Your task to perform on an android device: change text size in settings app Image 0: 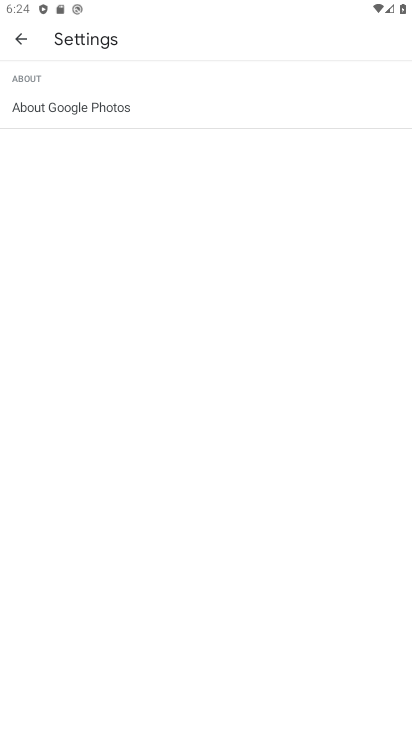
Step 0: press home button
Your task to perform on an android device: change text size in settings app Image 1: 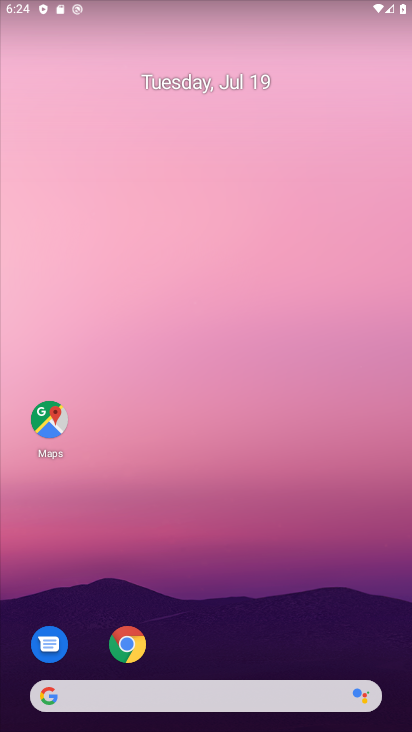
Step 1: drag from (243, 602) to (237, 231)
Your task to perform on an android device: change text size in settings app Image 2: 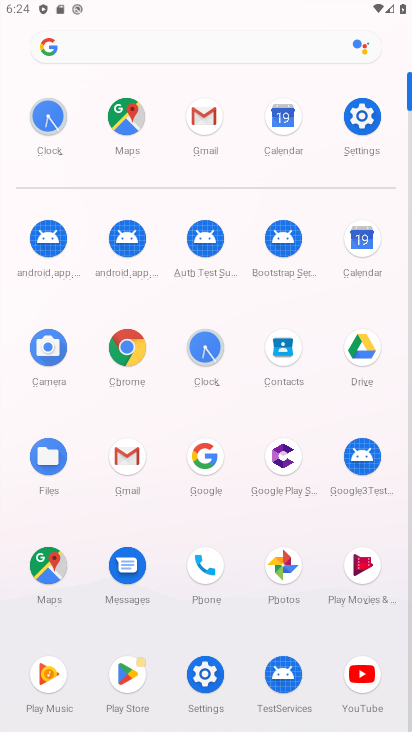
Step 2: click (365, 116)
Your task to perform on an android device: change text size in settings app Image 3: 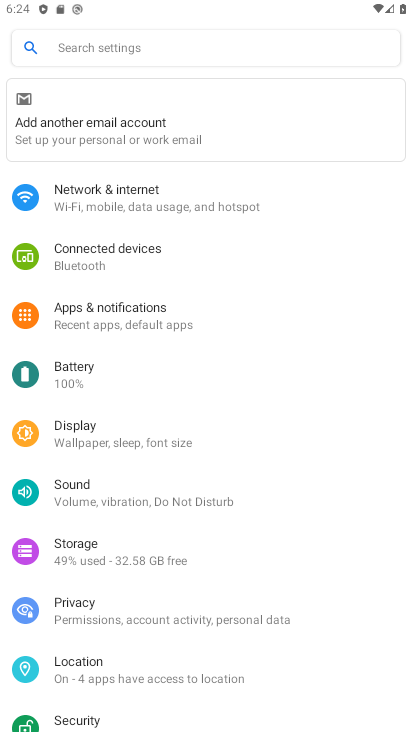
Step 3: click (80, 436)
Your task to perform on an android device: change text size in settings app Image 4: 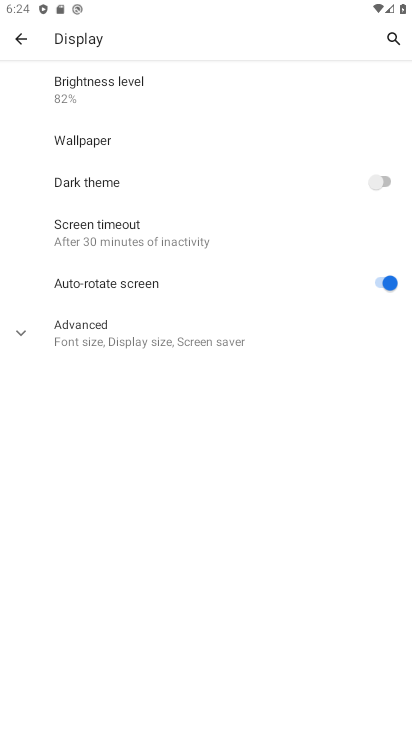
Step 4: click (115, 326)
Your task to perform on an android device: change text size in settings app Image 5: 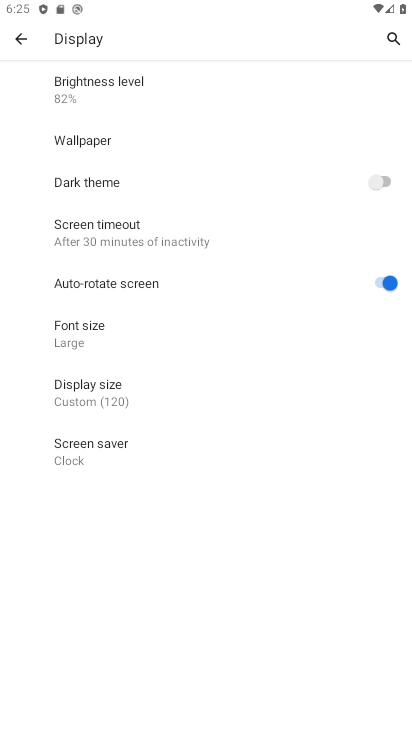
Step 5: task complete